Your task to perform on an android device: Search for Mexican restaurants on Maps Image 0: 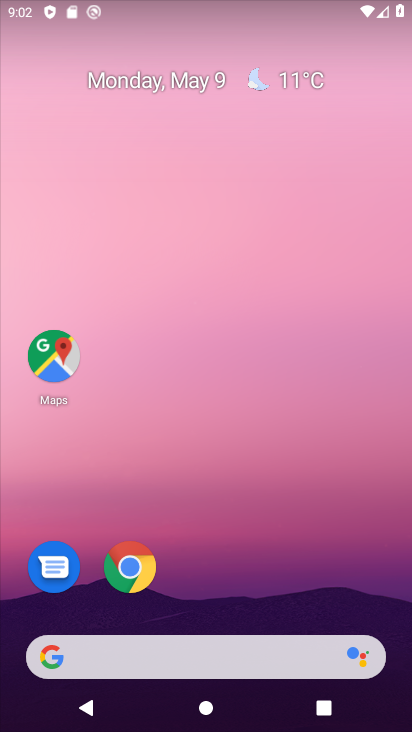
Step 0: click (57, 355)
Your task to perform on an android device: Search for Mexican restaurants on Maps Image 1: 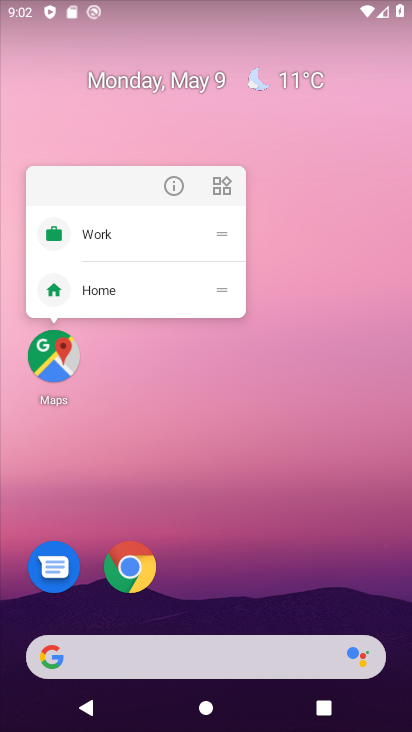
Step 1: click (57, 358)
Your task to perform on an android device: Search for Mexican restaurants on Maps Image 2: 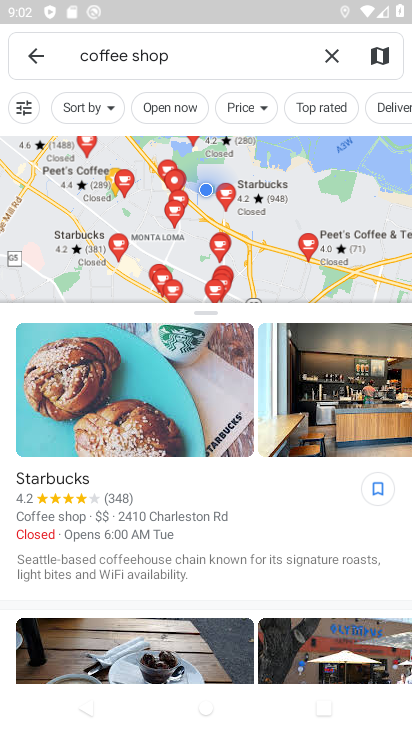
Step 2: click (326, 51)
Your task to perform on an android device: Search for Mexican restaurants on Maps Image 3: 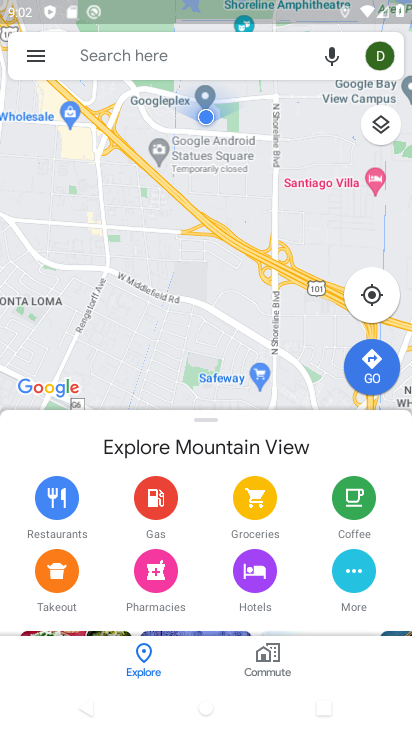
Step 3: click (238, 67)
Your task to perform on an android device: Search for Mexican restaurants on Maps Image 4: 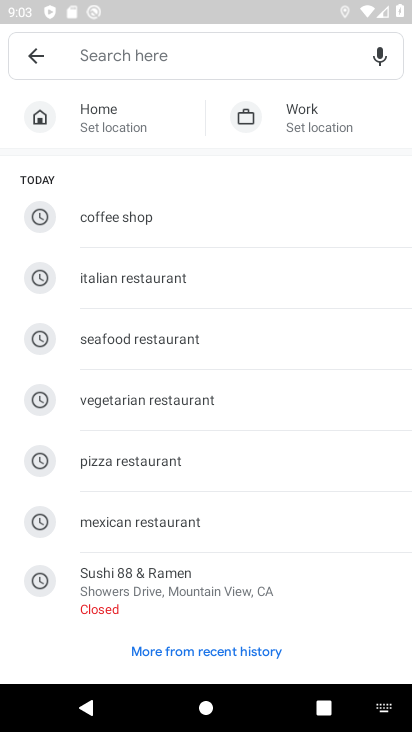
Step 4: click (173, 517)
Your task to perform on an android device: Search for Mexican restaurants on Maps Image 5: 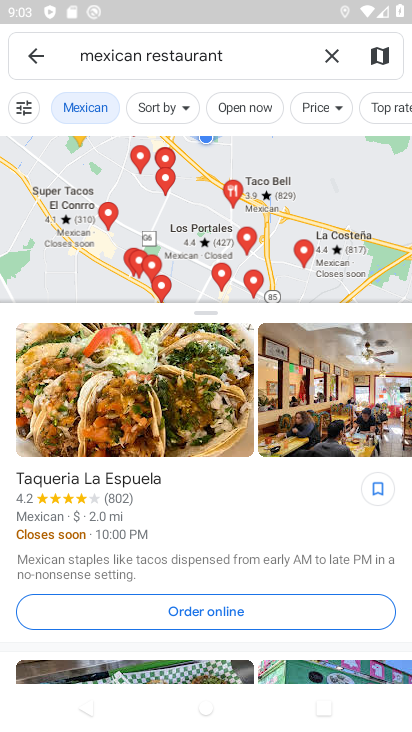
Step 5: task complete